Your task to perform on an android device: Add "usb-c" to the cart on target, then select checkout. Image 0: 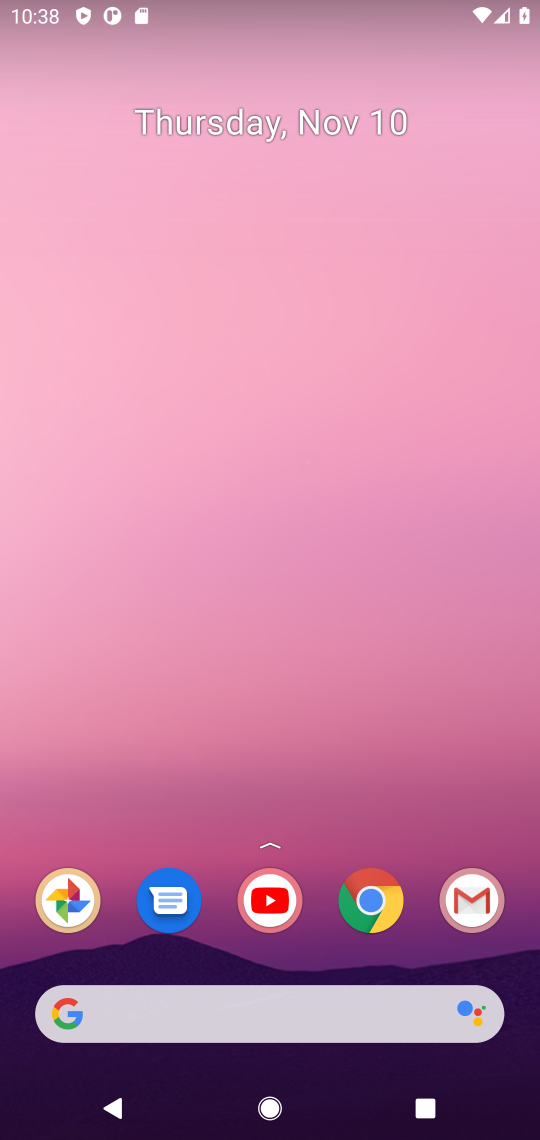
Step 0: click (374, 901)
Your task to perform on an android device: Add "usb-c" to the cart on target, then select checkout. Image 1: 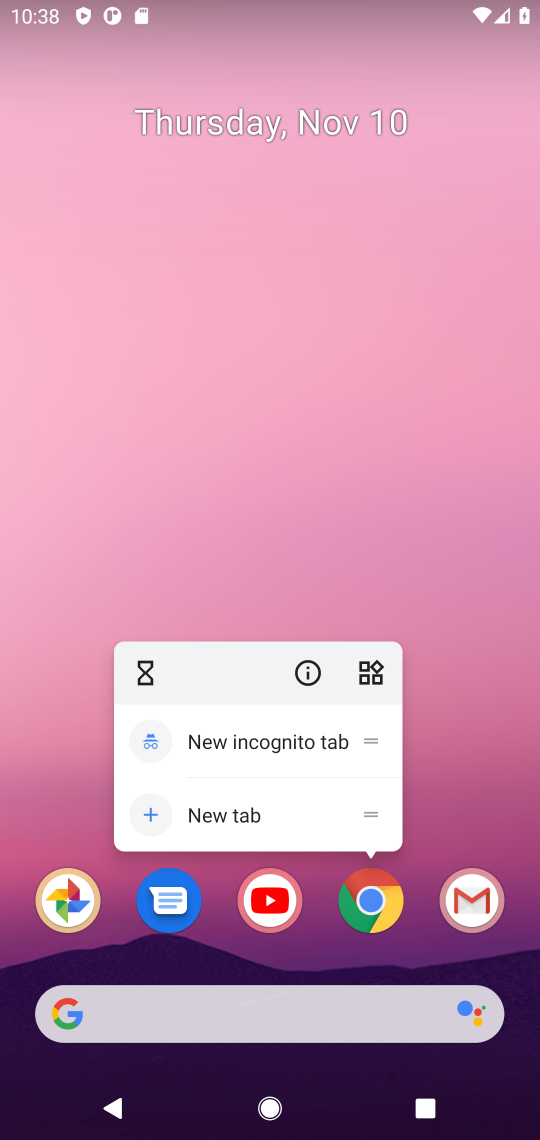
Step 1: click (372, 902)
Your task to perform on an android device: Add "usb-c" to the cart on target, then select checkout. Image 2: 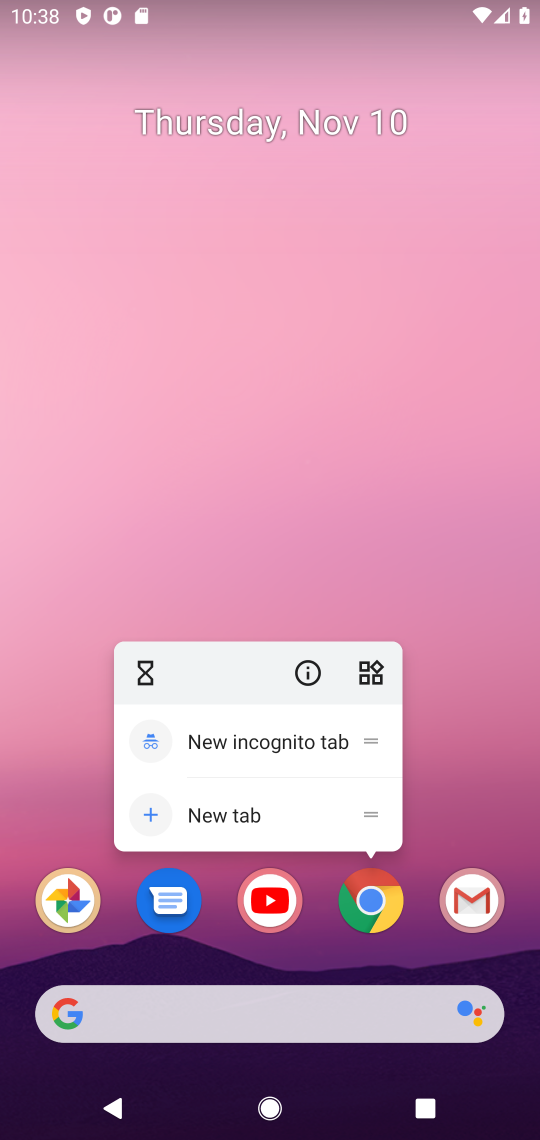
Step 2: click (372, 900)
Your task to perform on an android device: Add "usb-c" to the cart on target, then select checkout. Image 3: 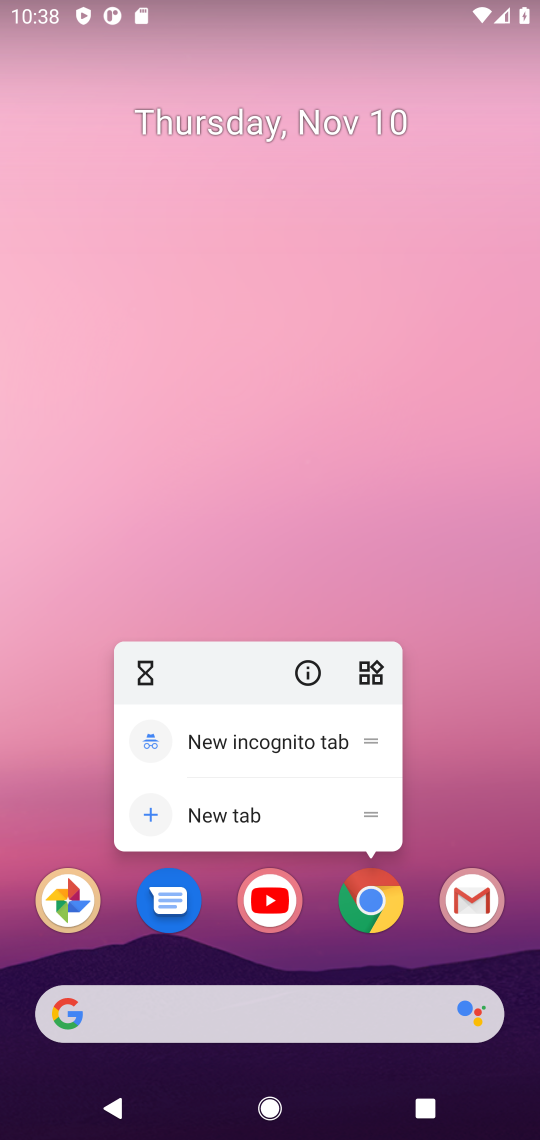
Step 3: click (372, 899)
Your task to perform on an android device: Add "usb-c" to the cart on target, then select checkout. Image 4: 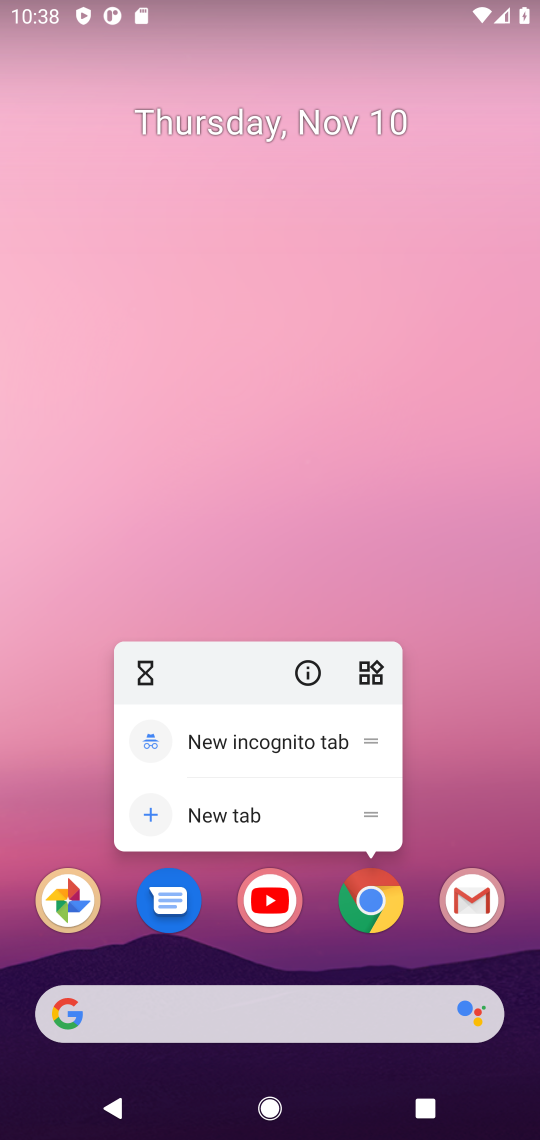
Step 4: click (372, 900)
Your task to perform on an android device: Add "usb-c" to the cart on target, then select checkout. Image 5: 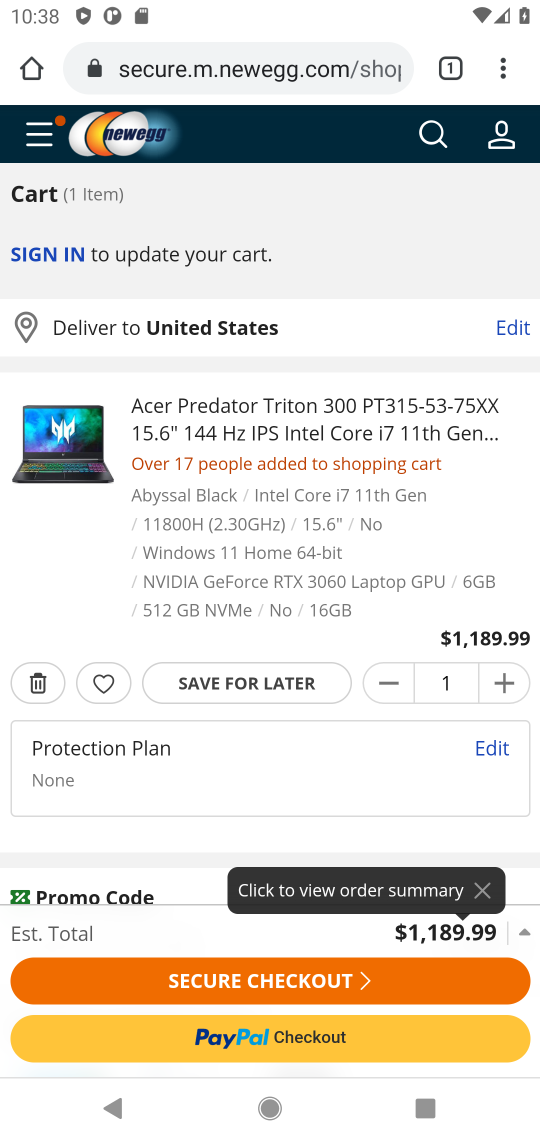
Step 5: click (318, 62)
Your task to perform on an android device: Add "usb-c" to the cart on target, then select checkout. Image 6: 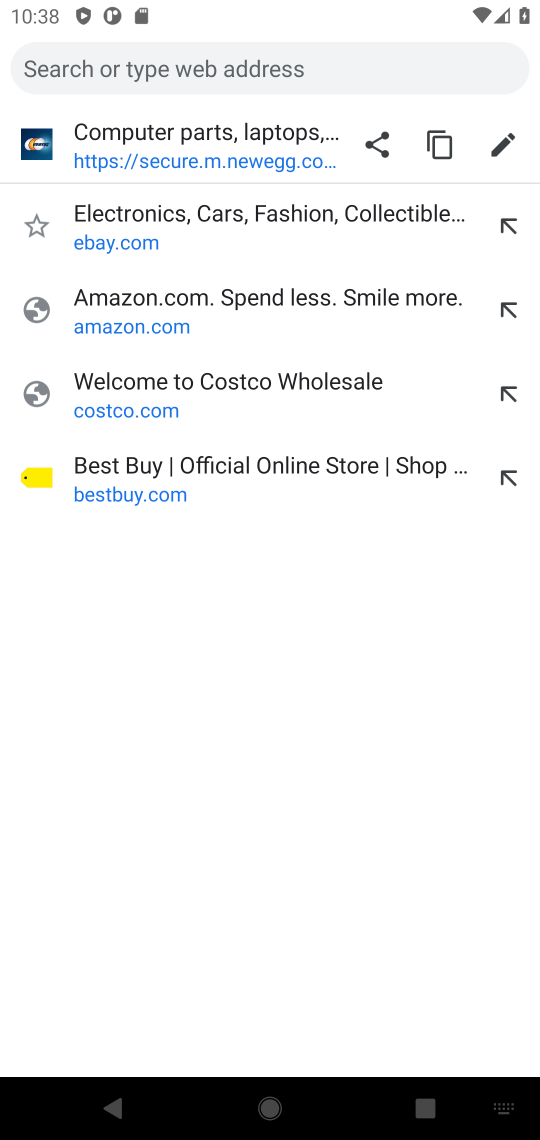
Step 6: type "target"
Your task to perform on an android device: Add "usb-c" to the cart on target, then select checkout. Image 7: 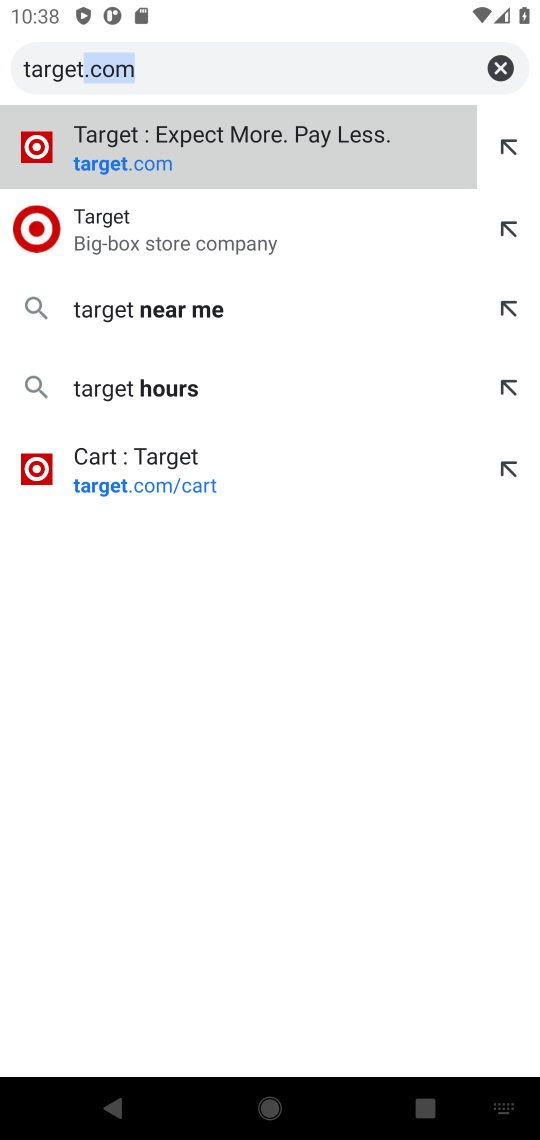
Step 7: press enter
Your task to perform on an android device: Add "usb-c" to the cart on target, then select checkout. Image 8: 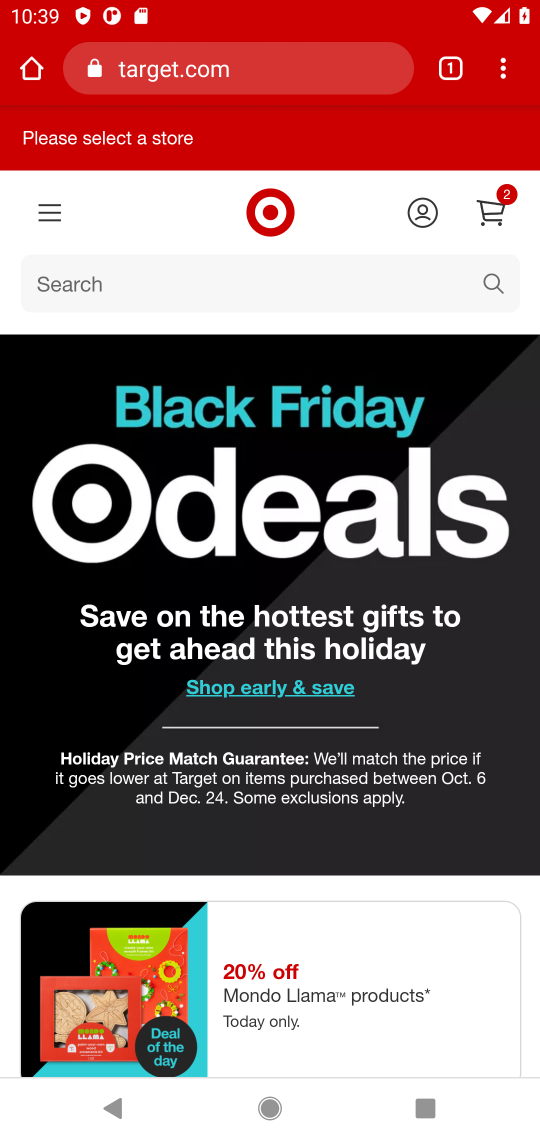
Step 8: click (202, 280)
Your task to perform on an android device: Add "usb-c" to the cart on target, then select checkout. Image 9: 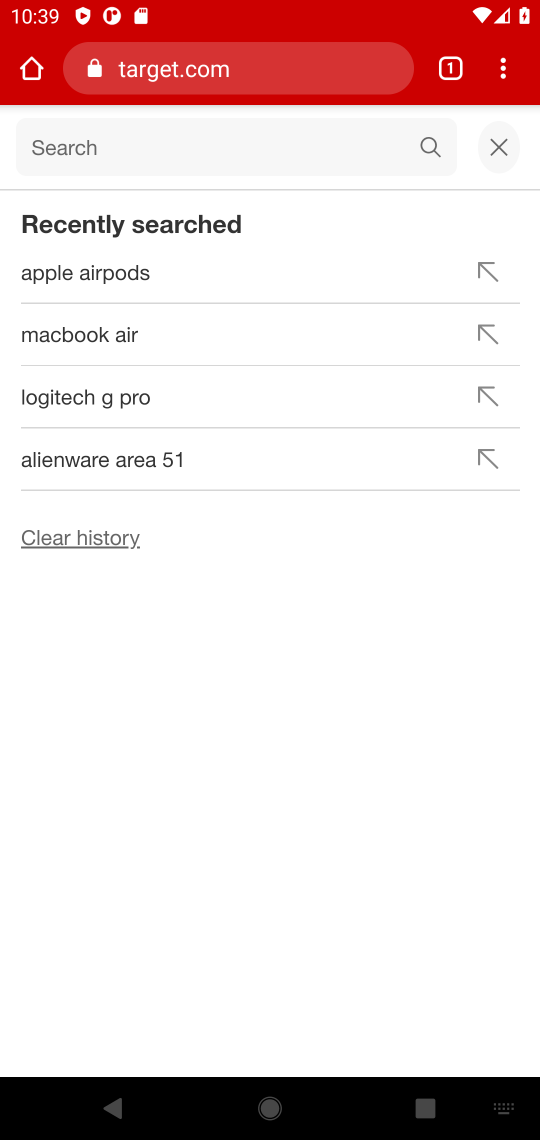
Step 9: type "usb-c"
Your task to perform on an android device: Add "usb-c" to the cart on target, then select checkout. Image 10: 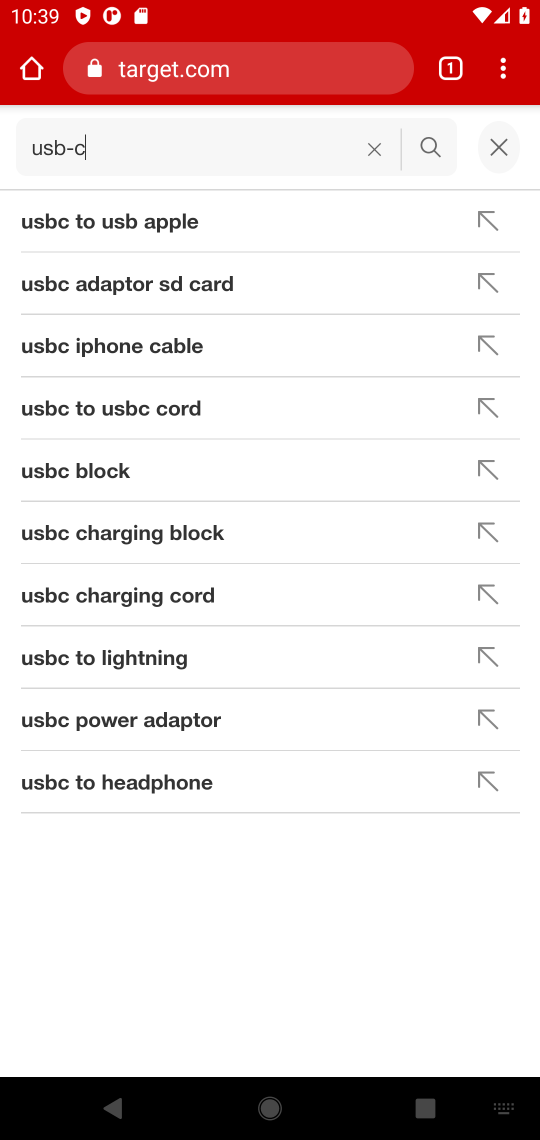
Step 10: press enter
Your task to perform on an android device: Add "usb-c" to the cart on target, then select checkout. Image 11: 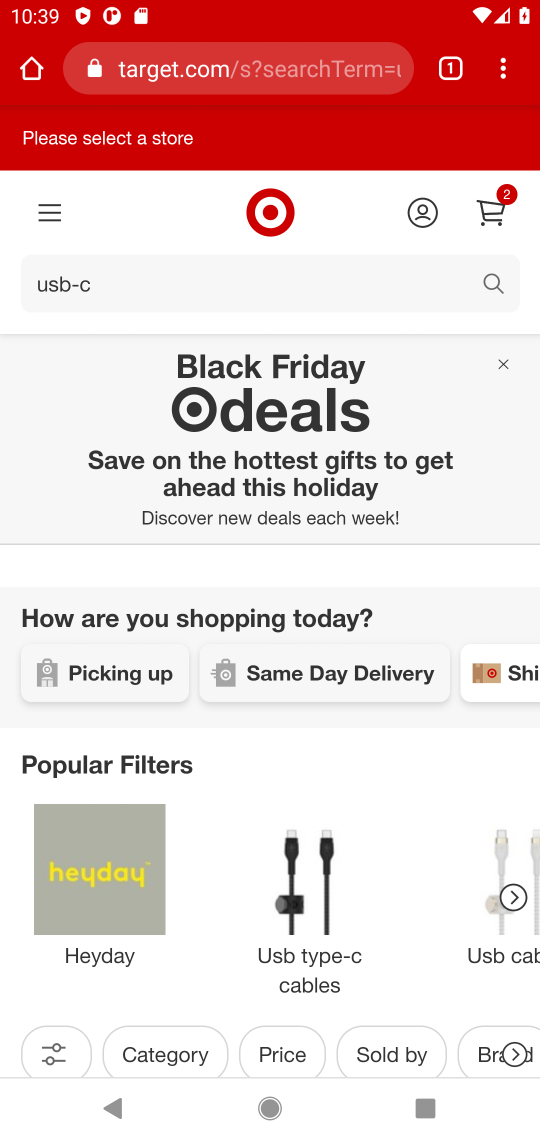
Step 11: drag from (231, 824) to (395, 468)
Your task to perform on an android device: Add "usb-c" to the cart on target, then select checkout. Image 12: 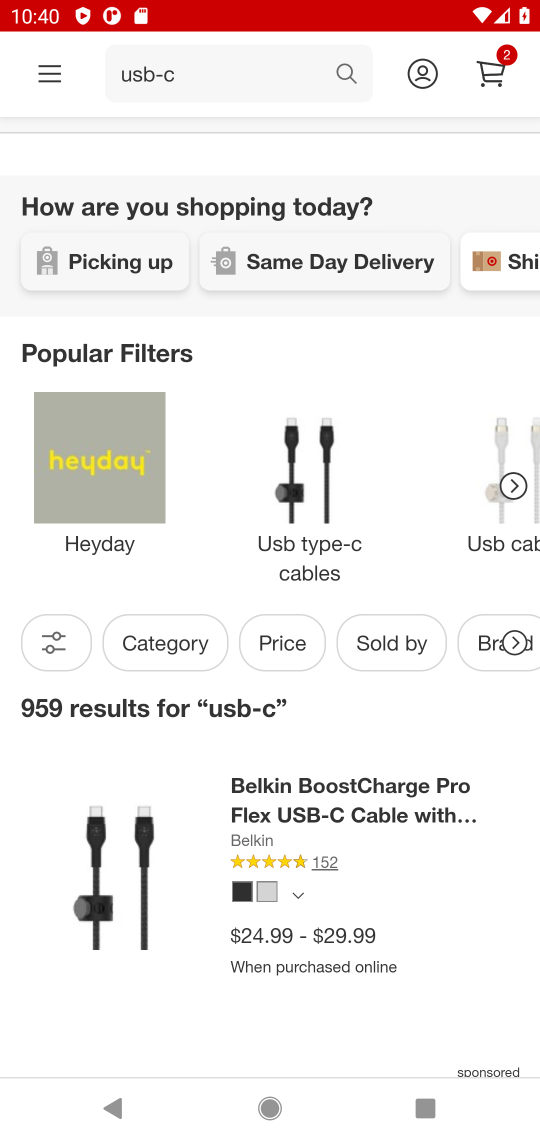
Step 12: drag from (374, 871) to (440, 504)
Your task to perform on an android device: Add "usb-c" to the cart on target, then select checkout. Image 13: 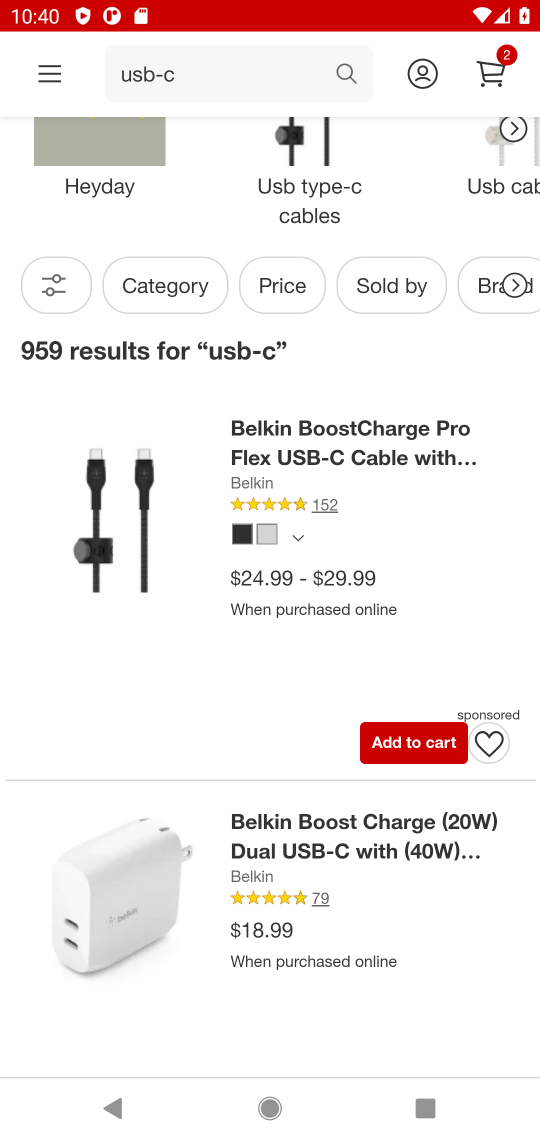
Step 13: click (334, 461)
Your task to perform on an android device: Add "usb-c" to the cart on target, then select checkout. Image 14: 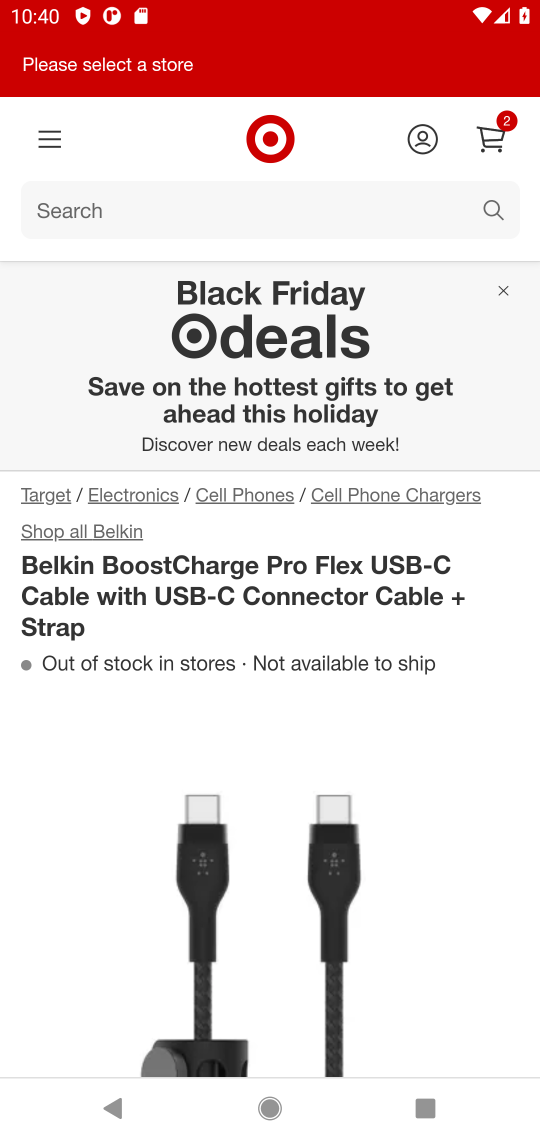
Step 14: drag from (96, 976) to (449, 215)
Your task to perform on an android device: Add "usb-c" to the cart on target, then select checkout. Image 15: 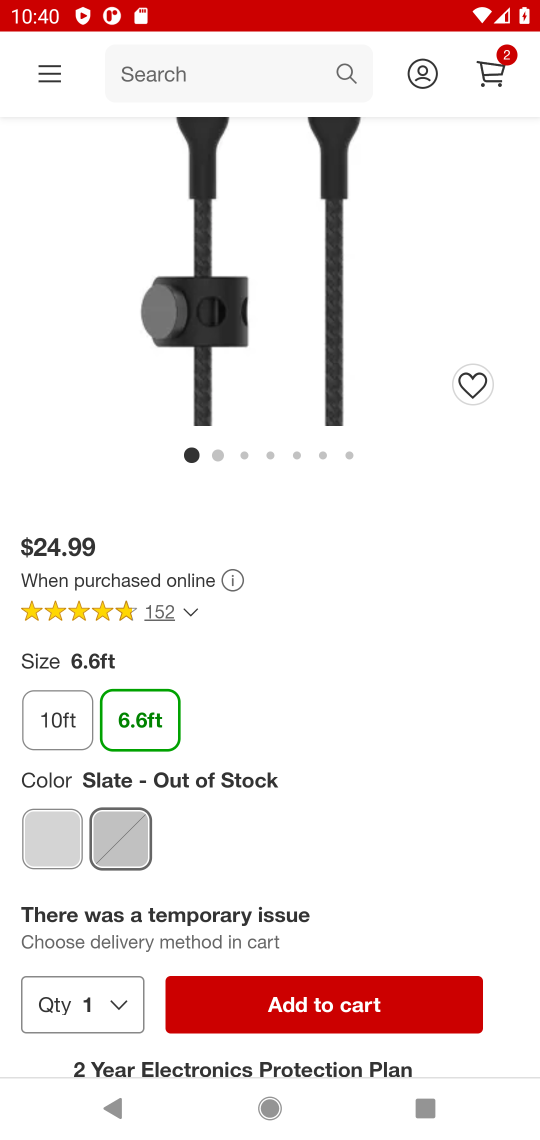
Step 15: click (306, 1002)
Your task to perform on an android device: Add "usb-c" to the cart on target, then select checkout. Image 16: 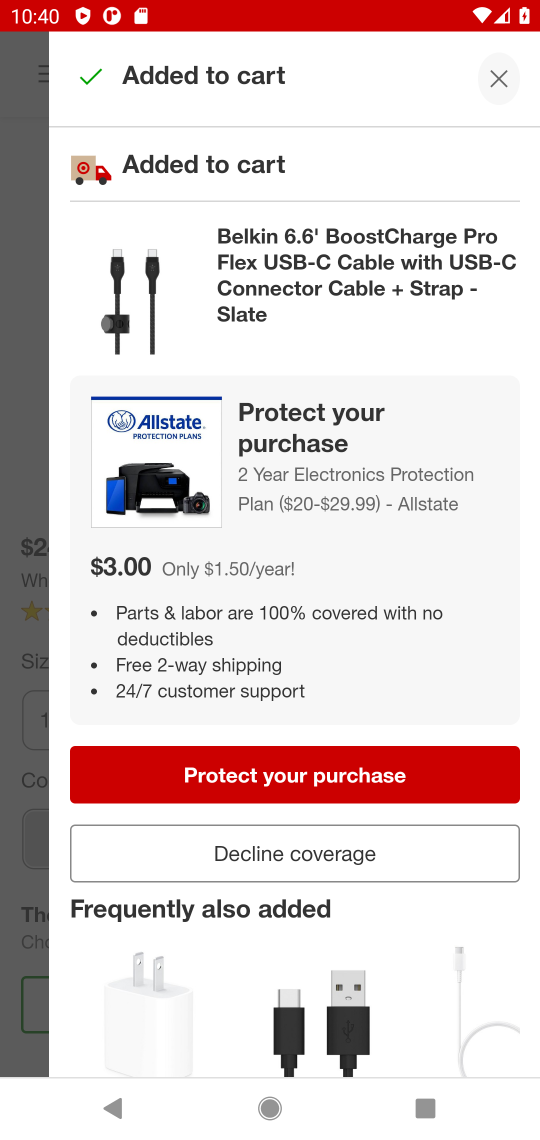
Step 16: click (281, 844)
Your task to perform on an android device: Add "usb-c" to the cart on target, then select checkout. Image 17: 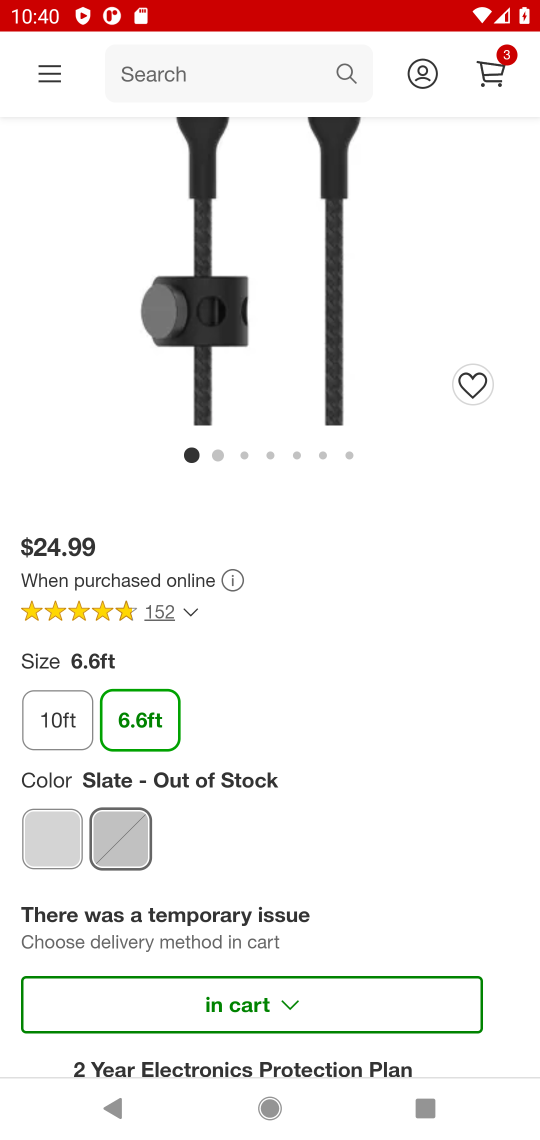
Step 17: click (494, 77)
Your task to perform on an android device: Add "usb-c" to the cart on target, then select checkout. Image 18: 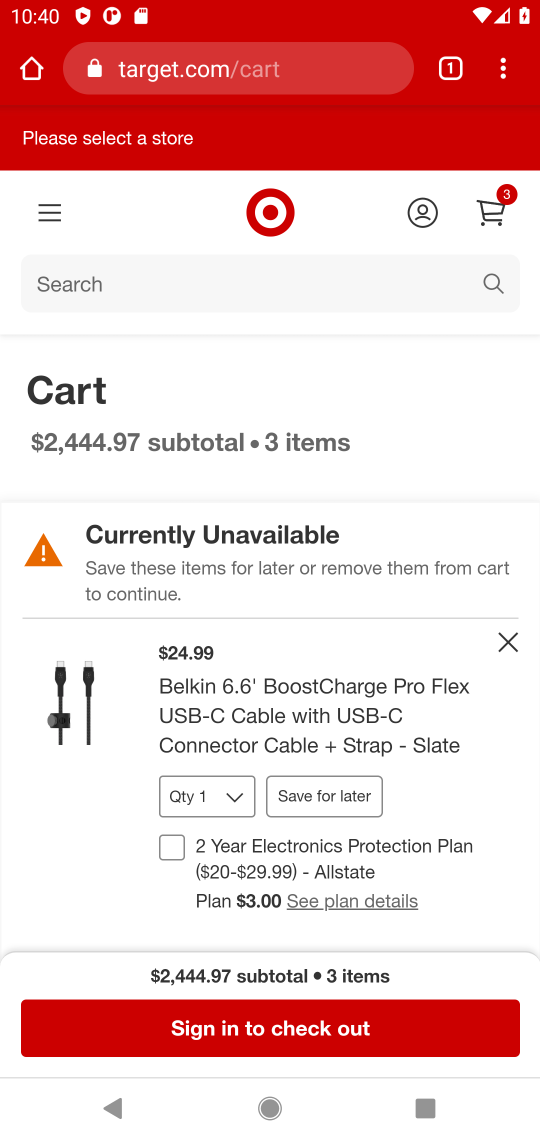
Step 18: drag from (42, 888) to (269, 592)
Your task to perform on an android device: Add "usb-c" to the cart on target, then select checkout. Image 19: 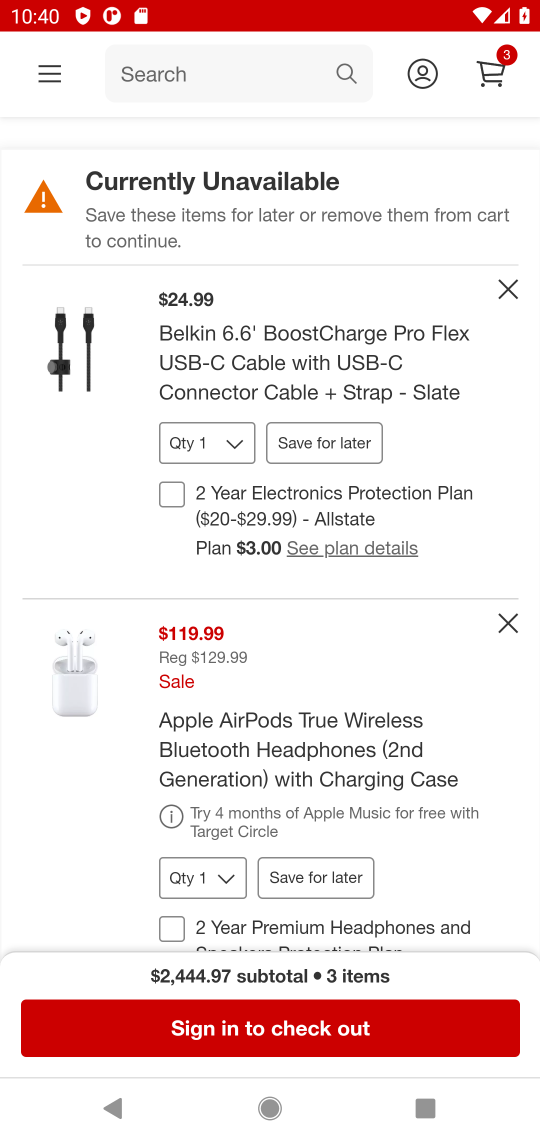
Step 19: click (506, 616)
Your task to perform on an android device: Add "usb-c" to the cart on target, then select checkout. Image 20: 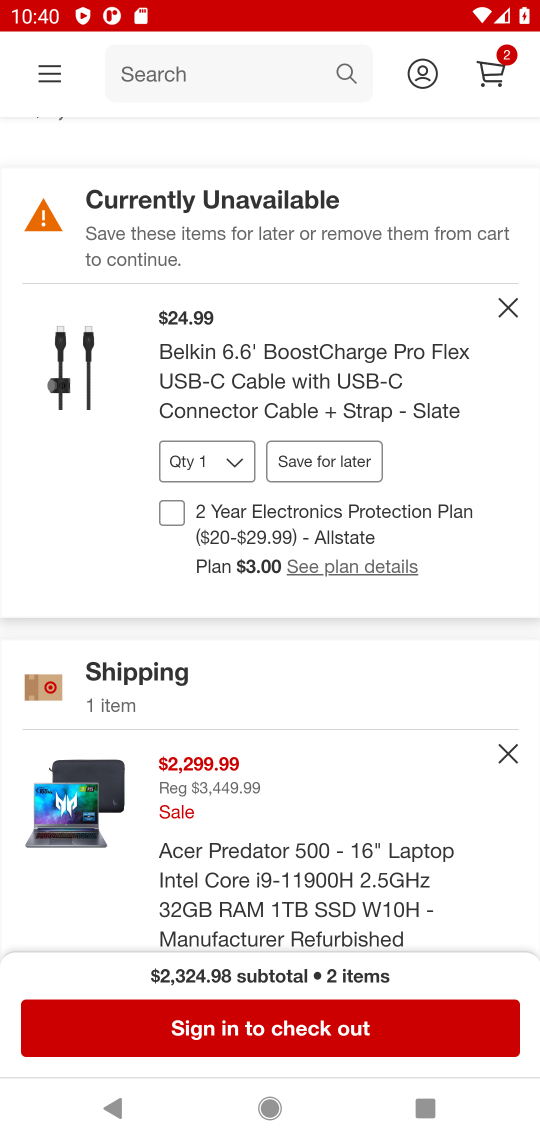
Step 20: drag from (404, 801) to (516, 527)
Your task to perform on an android device: Add "usb-c" to the cart on target, then select checkout. Image 21: 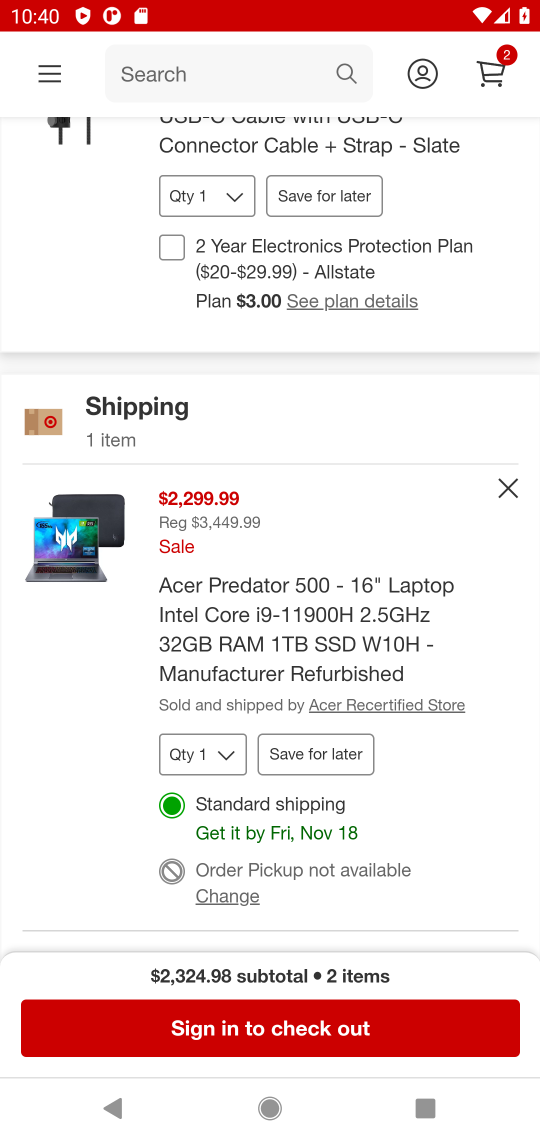
Step 21: click (510, 479)
Your task to perform on an android device: Add "usb-c" to the cart on target, then select checkout. Image 22: 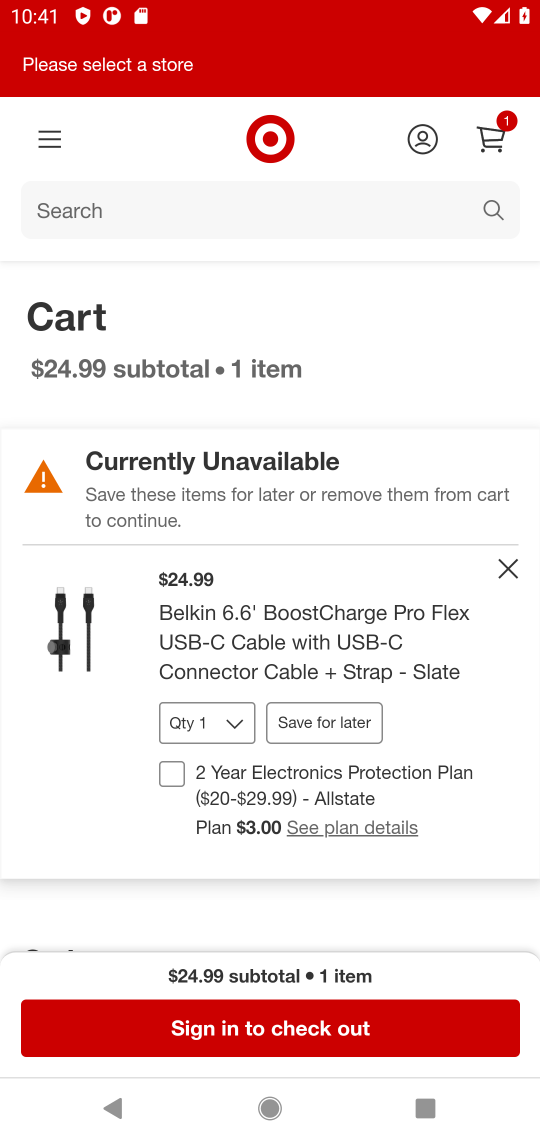
Step 22: click (292, 1021)
Your task to perform on an android device: Add "usb-c" to the cart on target, then select checkout. Image 23: 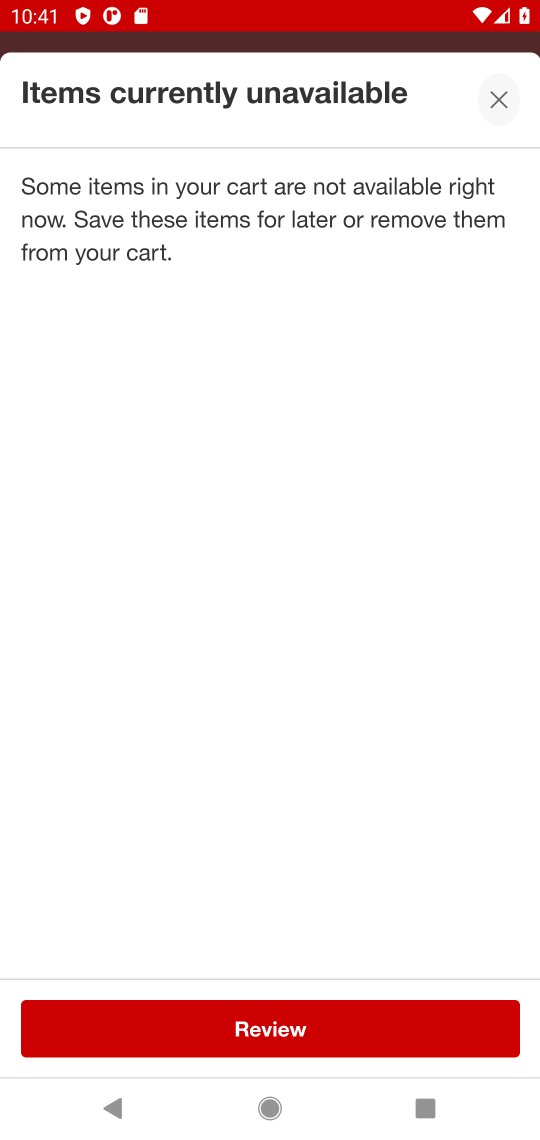
Step 23: task complete